Your task to perform on an android device: Open network settings Image 0: 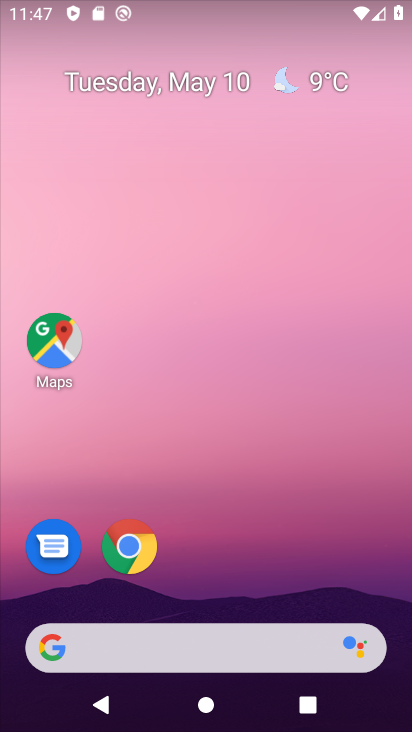
Step 0: drag from (213, 525) to (246, 47)
Your task to perform on an android device: Open network settings Image 1: 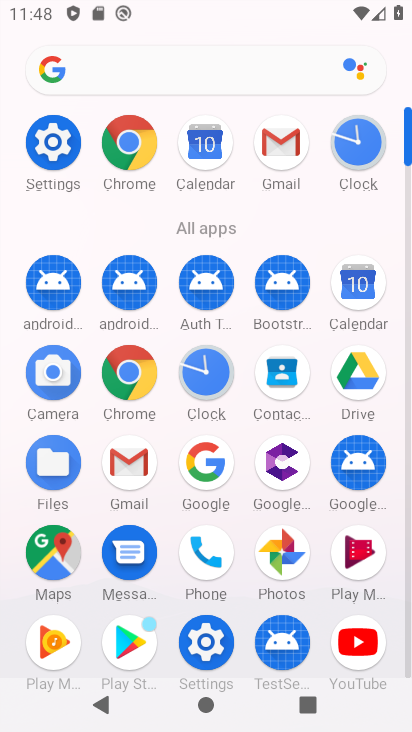
Step 1: click (60, 144)
Your task to perform on an android device: Open network settings Image 2: 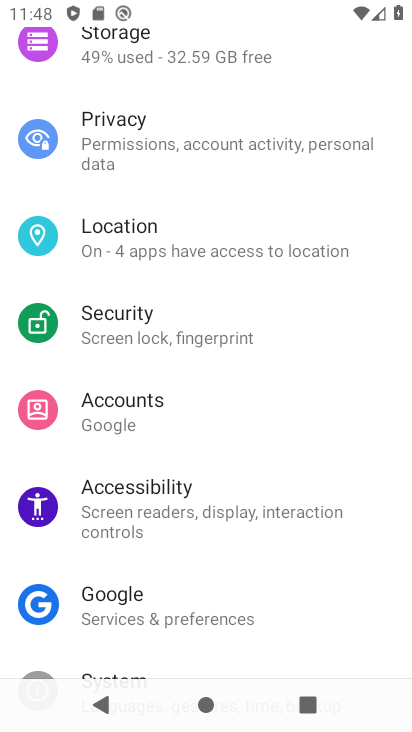
Step 2: drag from (178, 158) to (207, 646)
Your task to perform on an android device: Open network settings Image 3: 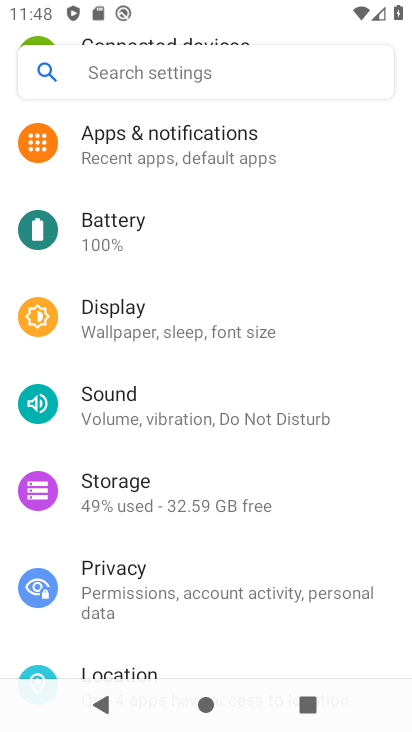
Step 3: drag from (218, 143) to (227, 670)
Your task to perform on an android device: Open network settings Image 4: 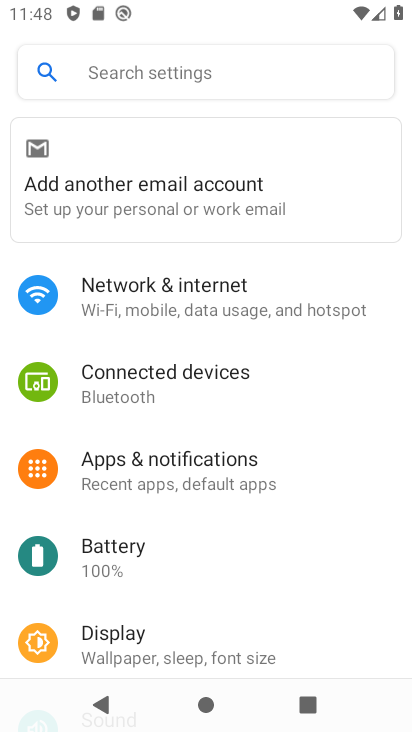
Step 4: click (166, 288)
Your task to perform on an android device: Open network settings Image 5: 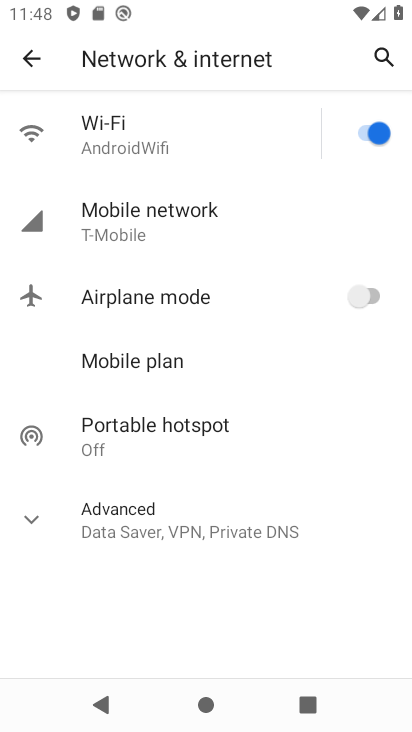
Step 5: click (183, 234)
Your task to perform on an android device: Open network settings Image 6: 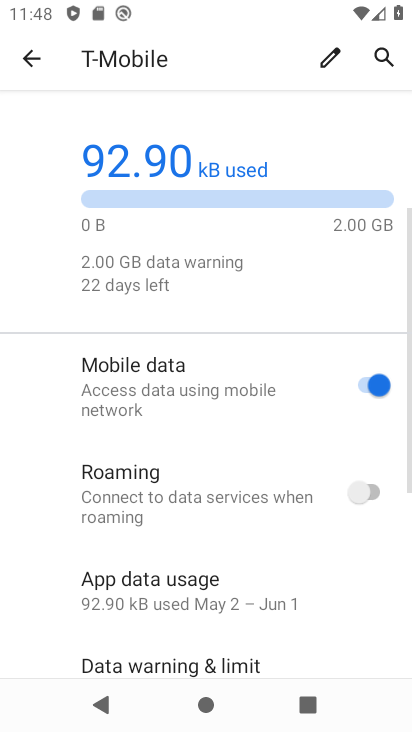
Step 6: task complete